Your task to perform on an android device: Go to Yahoo.com Image 0: 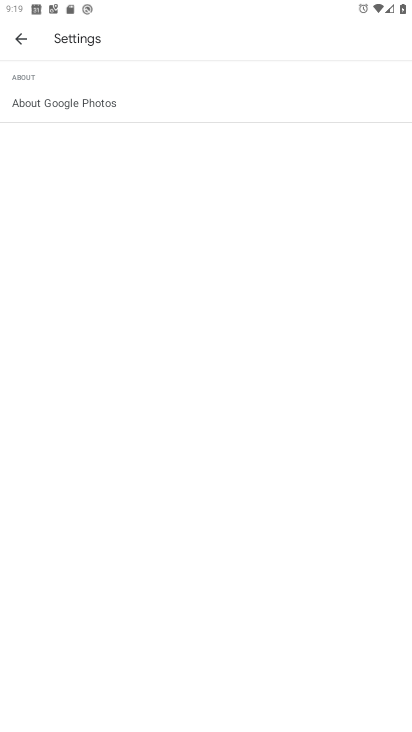
Step 0: press home button
Your task to perform on an android device: Go to Yahoo.com Image 1: 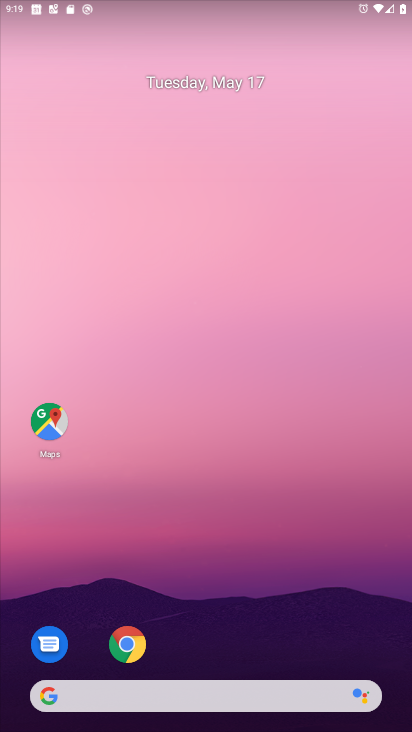
Step 1: click (126, 639)
Your task to perform on an android device: Go to Yahoo.com Image 2: 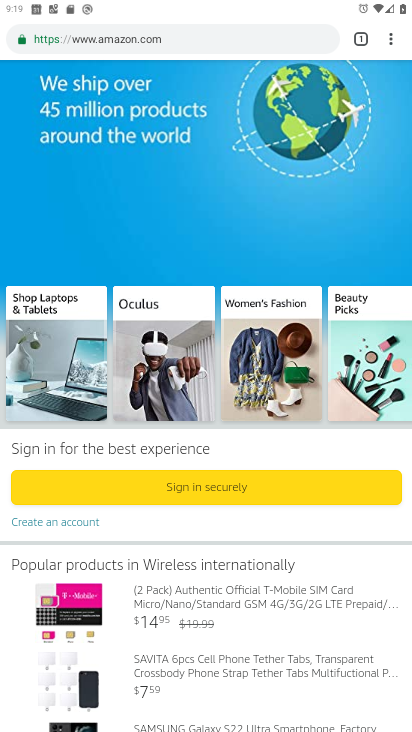
Step 2: click (359, 35)
Your task to perform on an android device: Go to Yahoo.com Image 3: 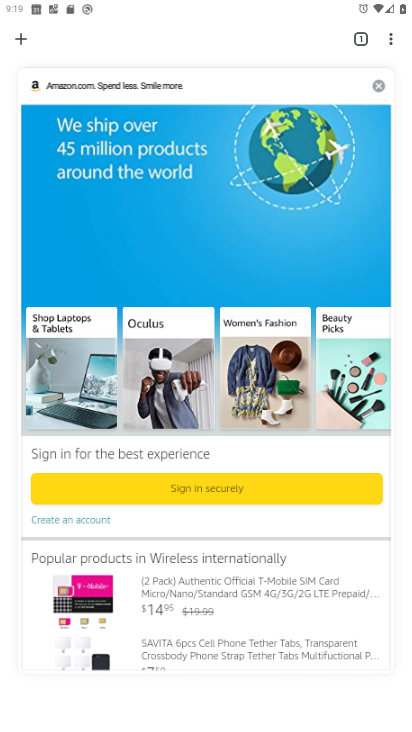
Step 3: click (19, 36)
Your task to perform on an android device: Go to Yahoo.com Image 4: 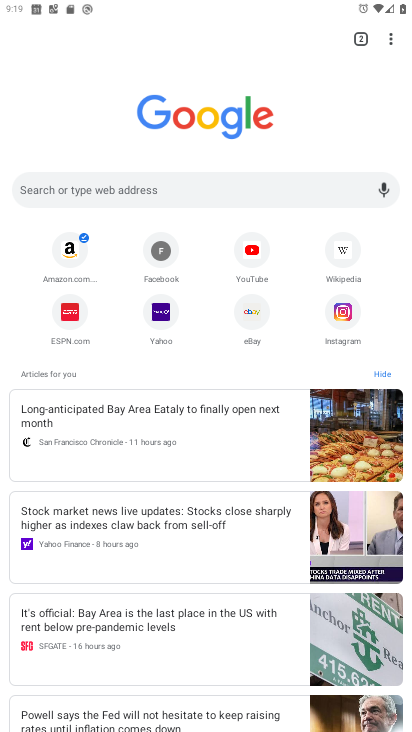
Step 4: click (157, 304)
Your task to perform on an android device: Go to Yahoo.com Image 5: 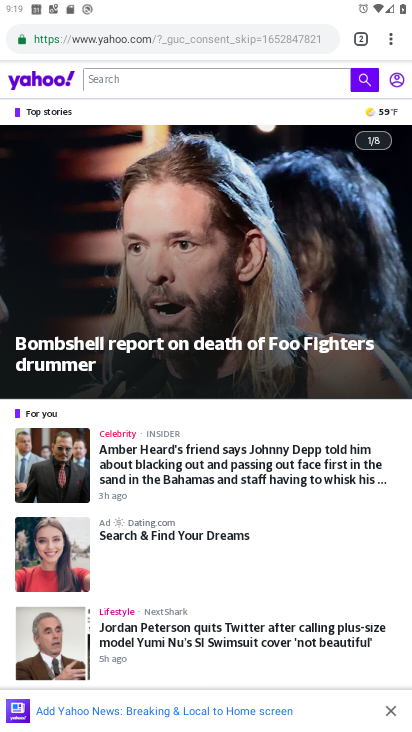
Step 5: task complete